Your task to perform on an android device: See recent photos Image 0: 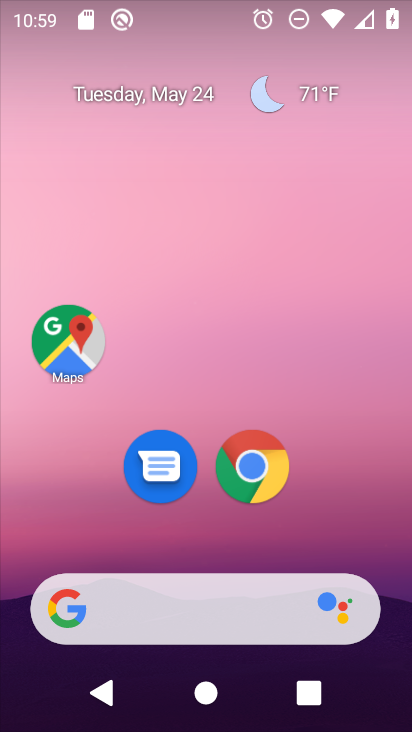
Step 0: drag from (218, 537) to (392, 29)
Your task to perform on an android device: See recent photos Image 1: 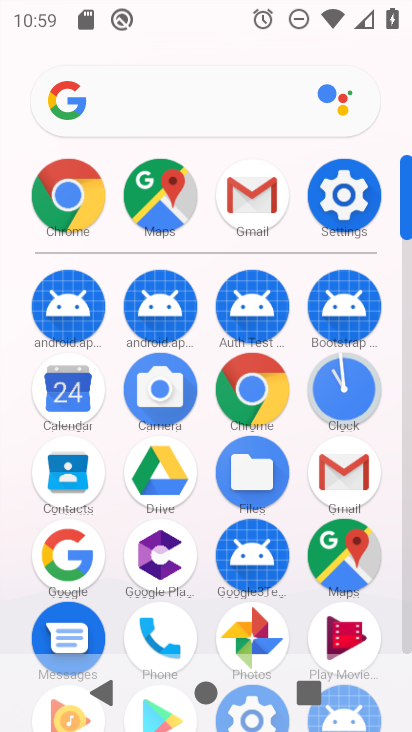
Step 1: click (280, 635)
Your task to perform on an android device: See recent photos Image 2: 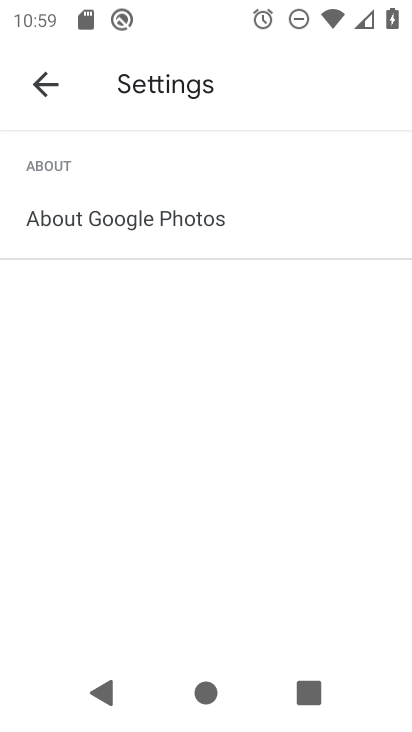
Step 2: click (46, 80)
Your task to perform on an android device: See recent photos Image 3: 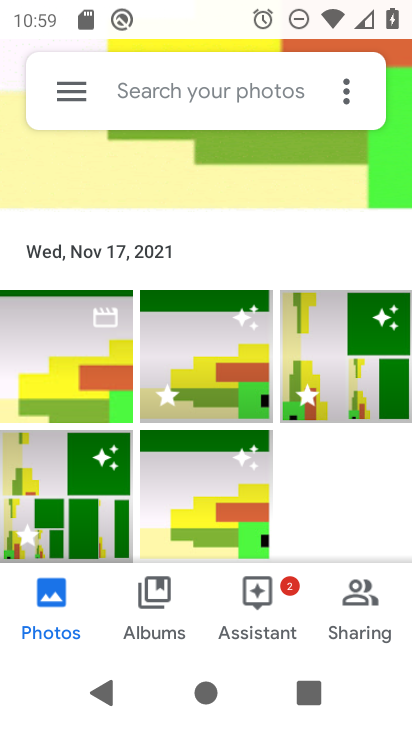
Step 3: task complete